Your task to perform on an android device: toggle location history Image 0: 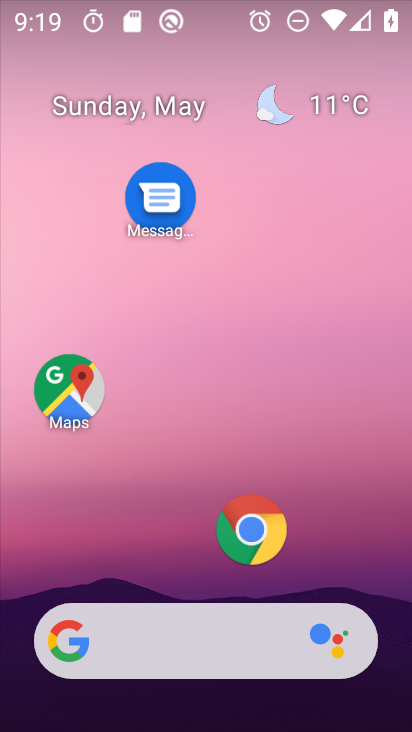
Step 0: drag from (207, 575) to (236, 88)
Your task to perform on an android device: toggle location history Image 1: 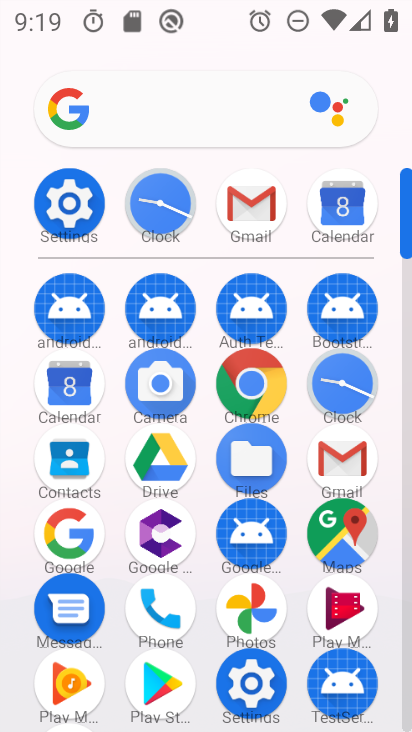
Step 1: click (247, 677)
Your task to perform on an android device: toggle location history Image 2: 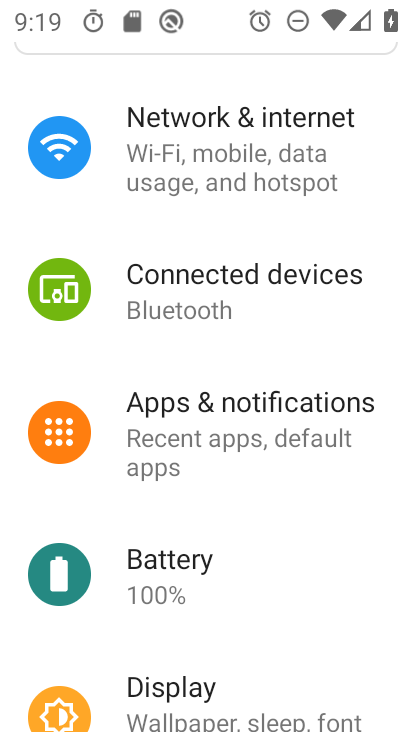
Step 2: drag from (244, 658) to (269, 104)
Your task to perform on an android device: toggle location history Image 3: 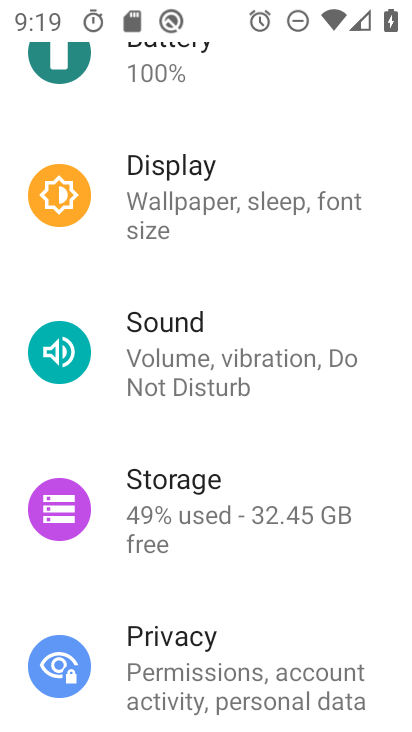
Step 3: drag from (234, 644) to (247, 85)
Your task to perform on an android device: toggle location history Image 4: 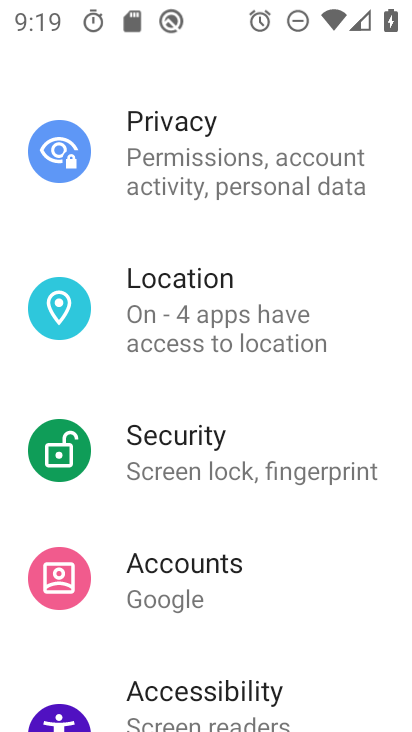
Step 4: click (252, 284)
Your task to perform on an android device: toggle location history Image 5: 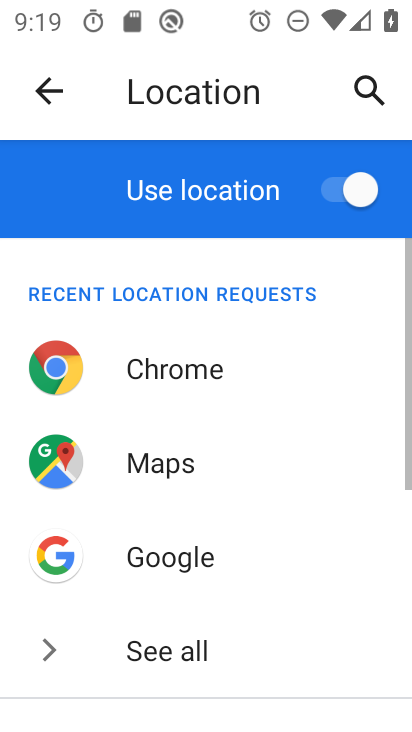
Step 5: drag from (236, 674) to (267, 154)
Your task to perform on an android device: toggle location history Image 6: 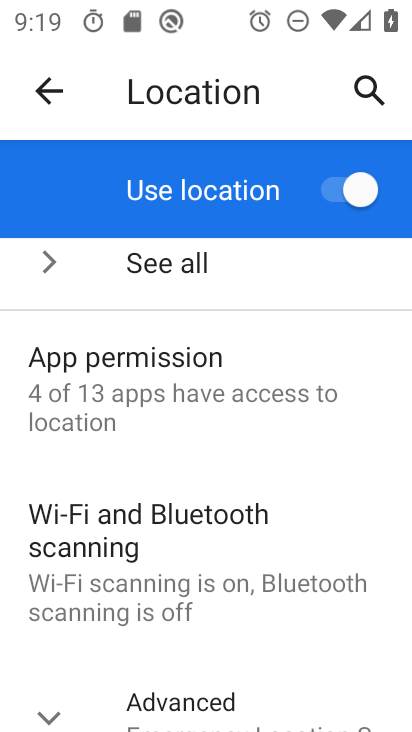
Step 6: click (125, 701)
Your task to perform on an android device: toggle location history Image 7: 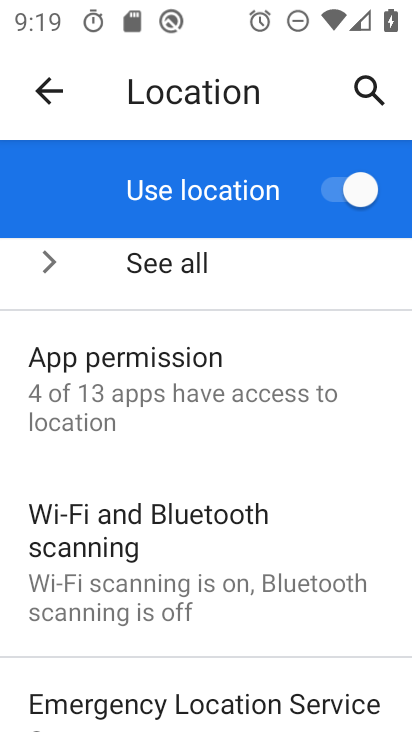
Step 7: drag from (198, 662) to (242, 282)
Your task to perform on an android device: toggle location history Image 8: 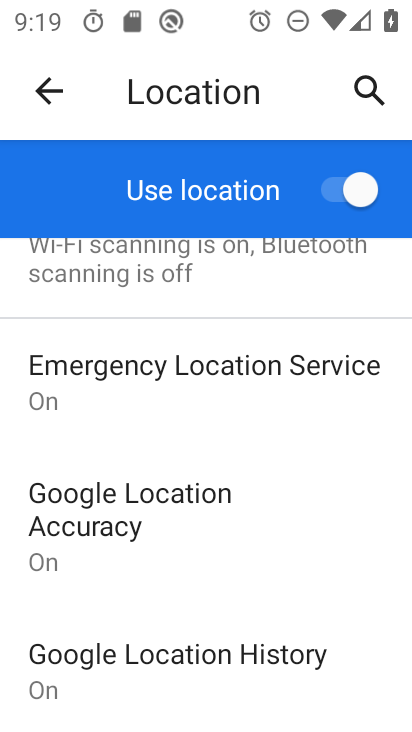
Step 8: click (220, 673)
Your task to perform on an android device: toggle location history Image 9: 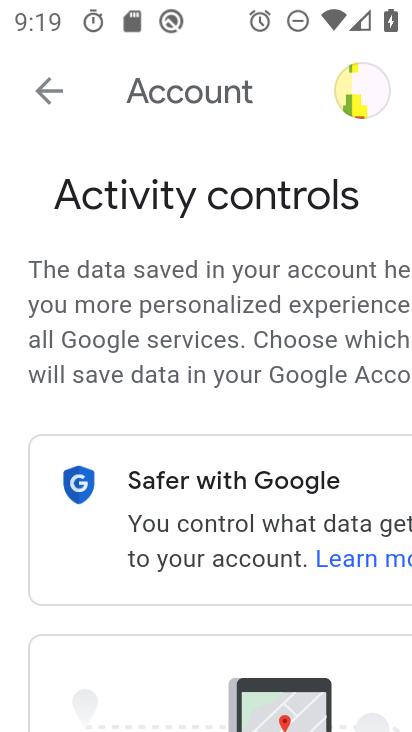
Step 9: task complete